Your task to perform on an android device: check battery use Image 0: 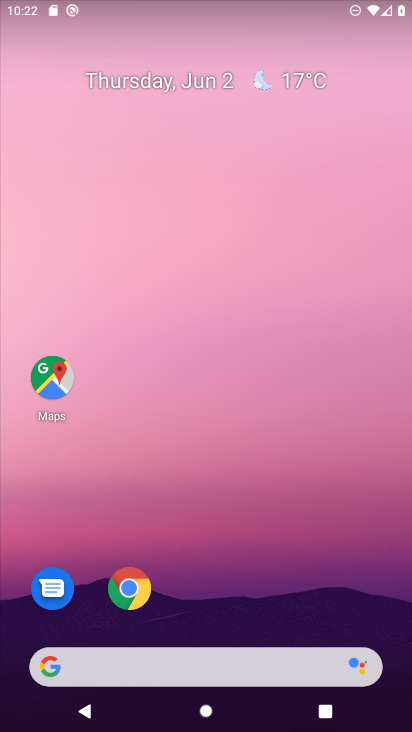
Step 0: drag from (235, 482) to (212, 201)
Your task to perform on an android device: check battery use Image 1: 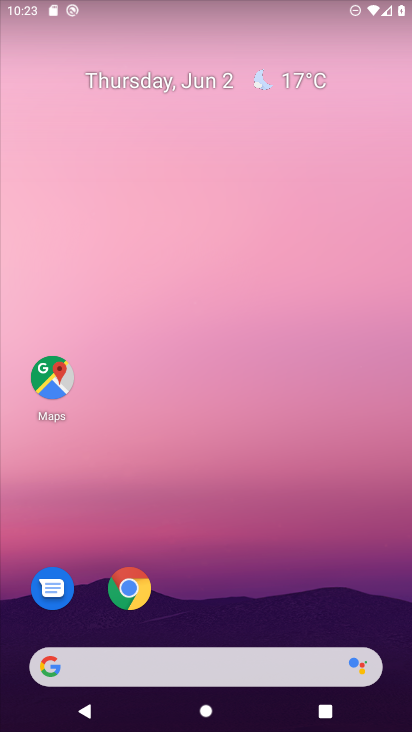
Step 1: drag from (197, 651) to (199, 173)
Your task to perform on an android device: check battery use Image 2: 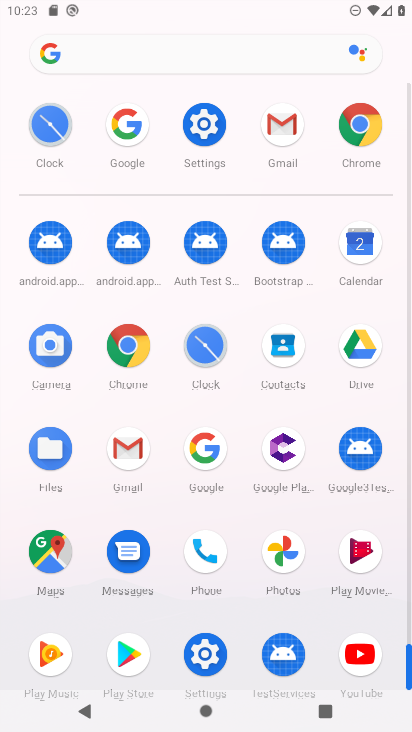
Step 2: click (194, 135)
Your task to perform on an android device: check battery use Image 3: 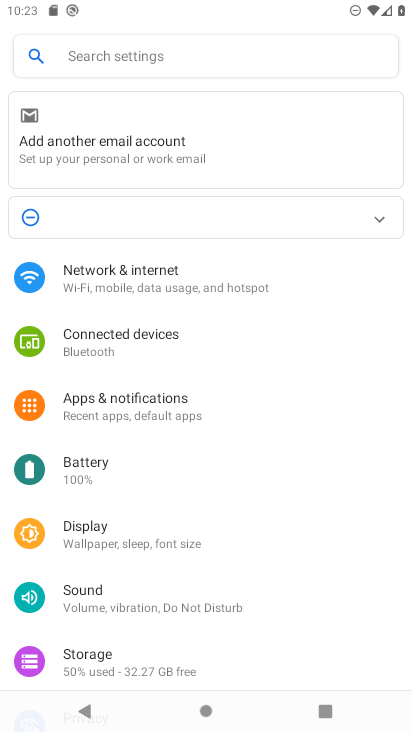
Step 3: drag from (146, 565) to (237, 259)
Your task to perform on an android device: check battery use Image 4: 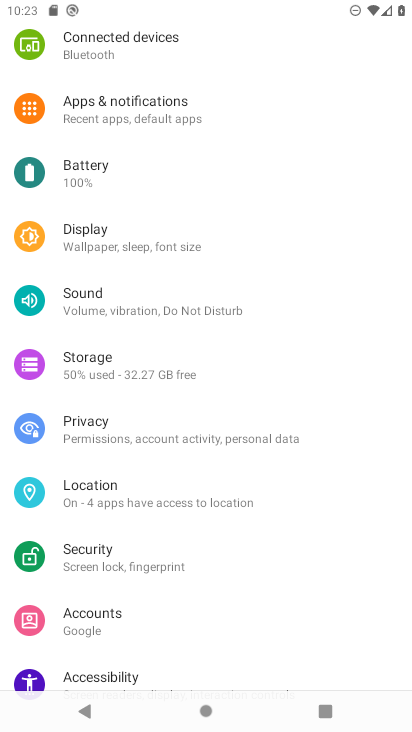
Step 4: click (91, 174)
Your task to perform on an android device: check battery use Image 5: 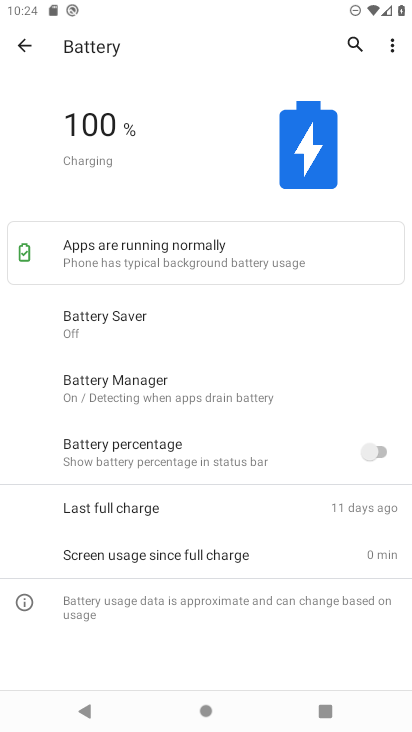
Step 5: task complete